Your task to perform on an android device: Show me popular games on the Play Store Image 0: 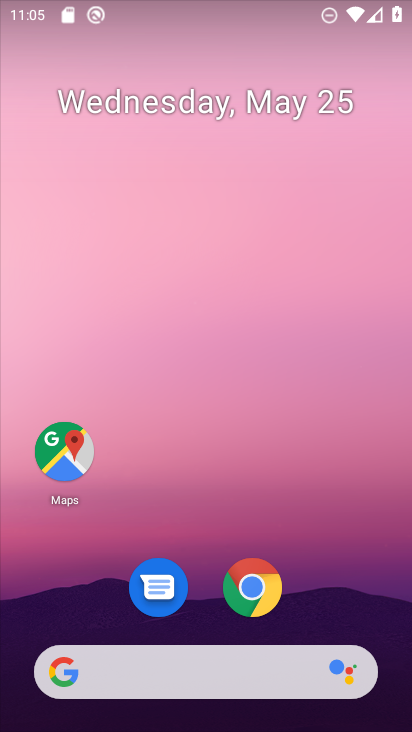
Step 0: drag from (334, 576) to (255, 15)
Your task to perform on an android device: Show me popular games on the Play Store Image 1: 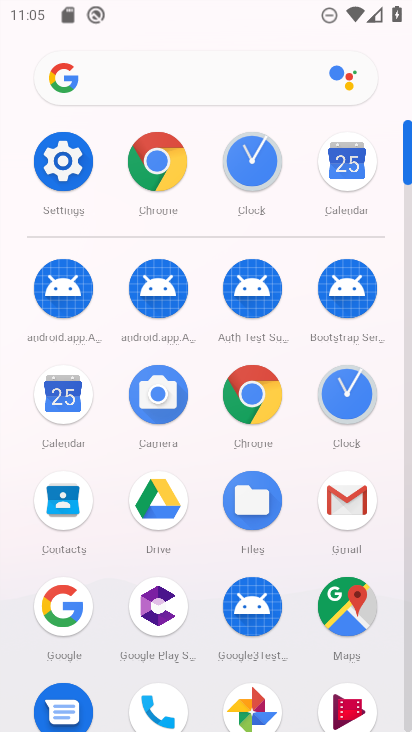
Step 1: drag from (0, 563) to (2, 232)
Your task to perform on an android device: Show me popular games on the Play Store Image 2: 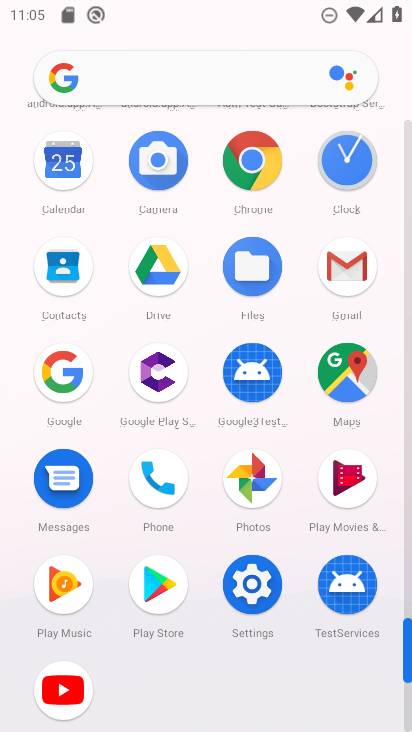
Step 2: click (151, 580)
Your task to perform on an android device: Show me popular games on the Play Store Image 3: 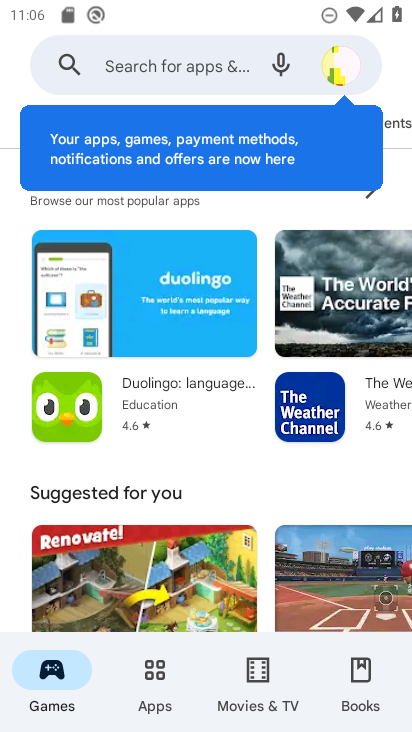
Step 3: press home button
Your task to perform on an android device: Show me popular games on the Play Store Image 4: 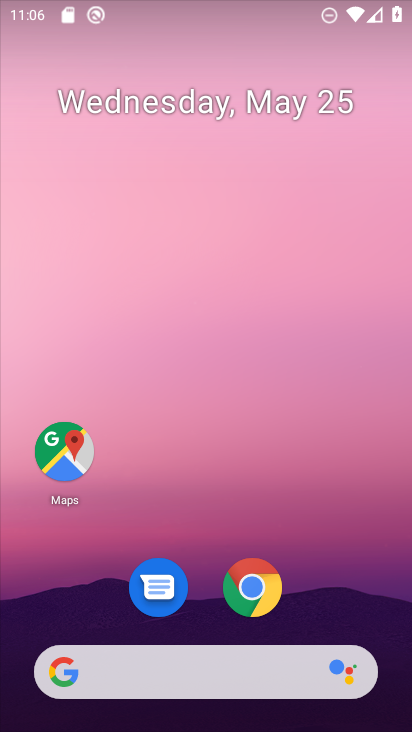
Step 4: drag from (296, 382) to (222, 16)
Your task to perform on an android device: Show me popular games on the Play Store Image 5: 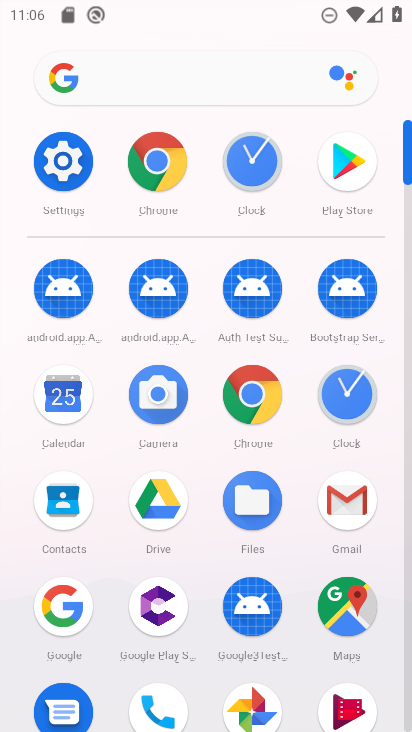
Step 5: drag from (13, 604) to (31, 285)
Your task to perform on an android device: Show me popular games on the Play Store Image 6: 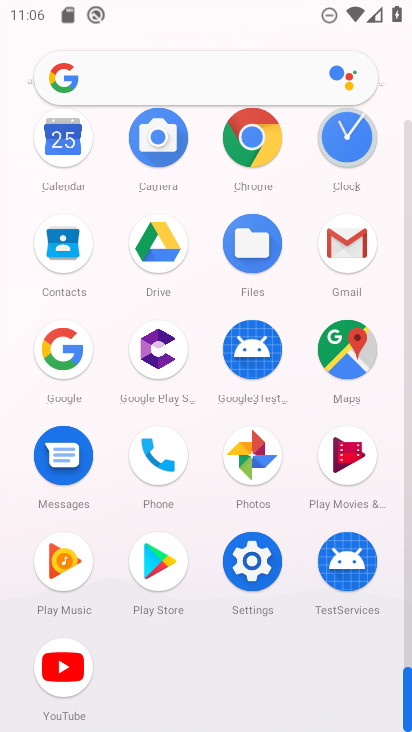
Step 6: click (151, 547)
Your task to perform on an android device: Show me popular games on the Play Store Image 7: 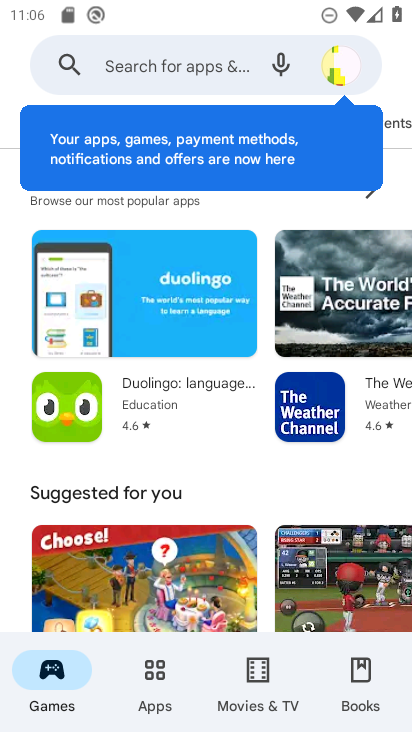
Step 7: task complete